Your task to perform on an android device: change text size in settings app Image 0: 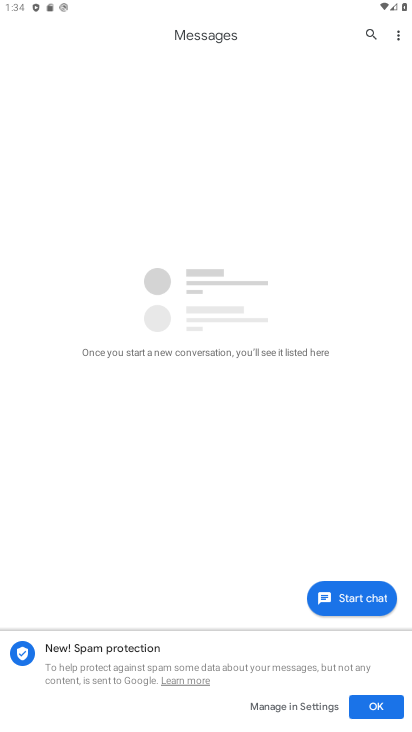
Step 0: press home button
Your task to perform on an android device: change text size in settings app Image 1: 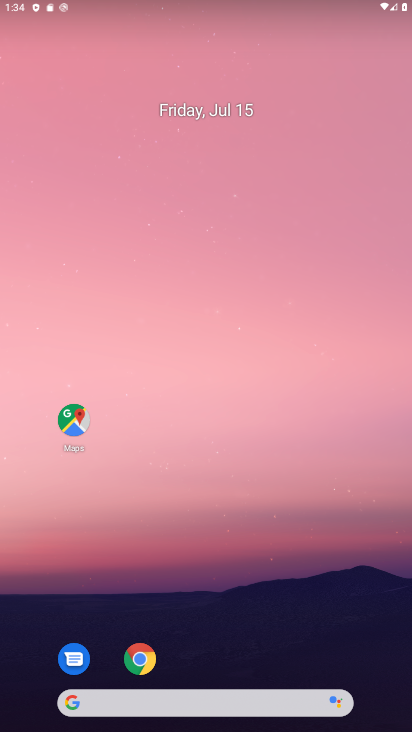
Step 1: drag from (234, 554) to (229, 161)
Your task to perform on an android device: change text size in settings app Image 2: 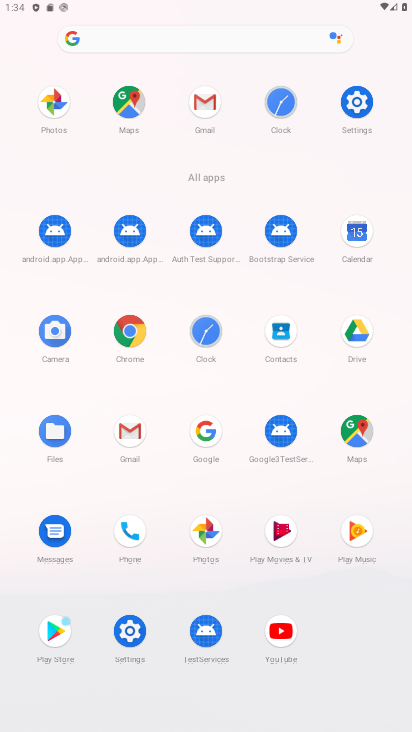
Step 2: click (354, 88)
Your task to perform on an android device: change text size in settings app Image 3: 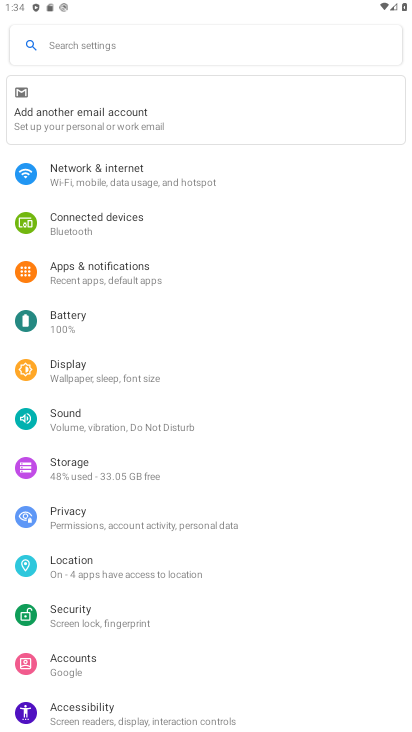
Step 3: drag from (163, 686) to (255, 249)
Your task to perform on an android device: change text size in settings app Image 4: 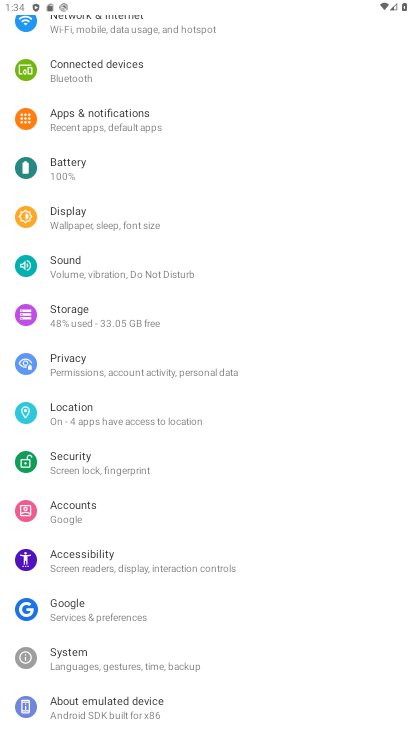
Step 4: click (104, 660)
Your task to perform on an android device: change text size in settings app Image 5: 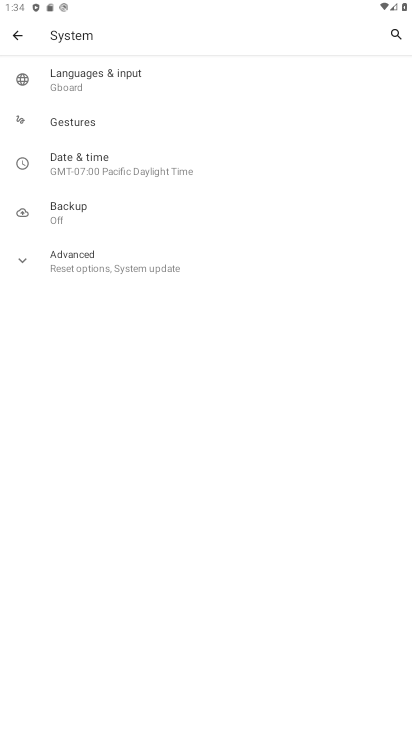
Step 5: click (11, 28)
Your task to perform on an android device: change text size in settings app Image 6: 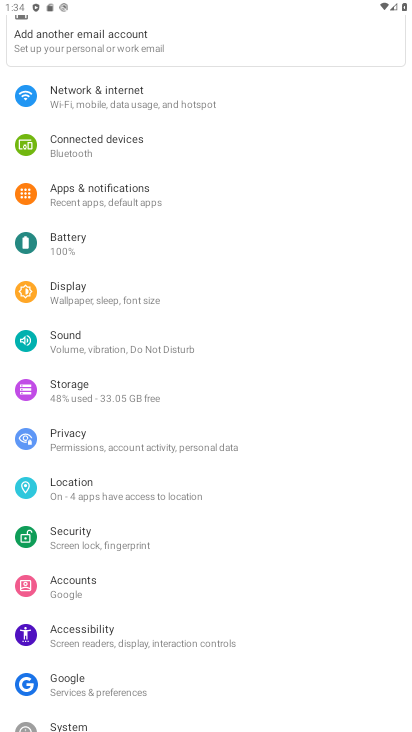
Step 6: click (103, 624)
Your task to perform on an android device: change text size in settings app Image 7: 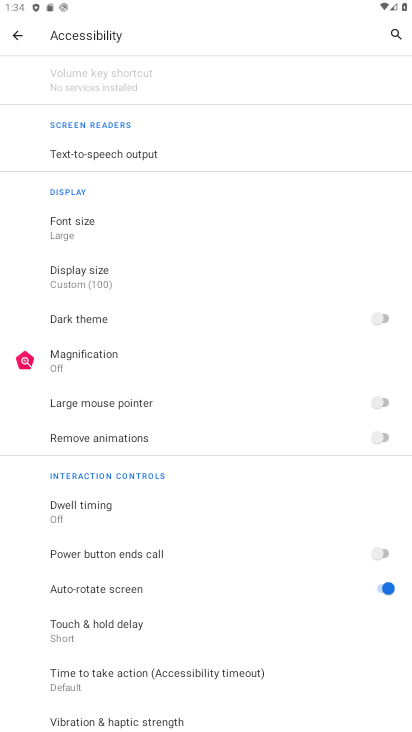
Step 7: click (97, 225)
Your task to perform on an android device: change text size in settings app Image 8: 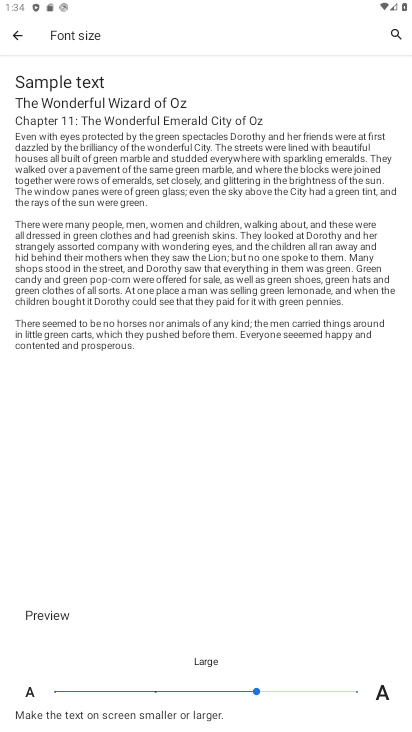
Step 8: click (324, 688)
Your task to perform on an android device: change text size in settings app Image 9: 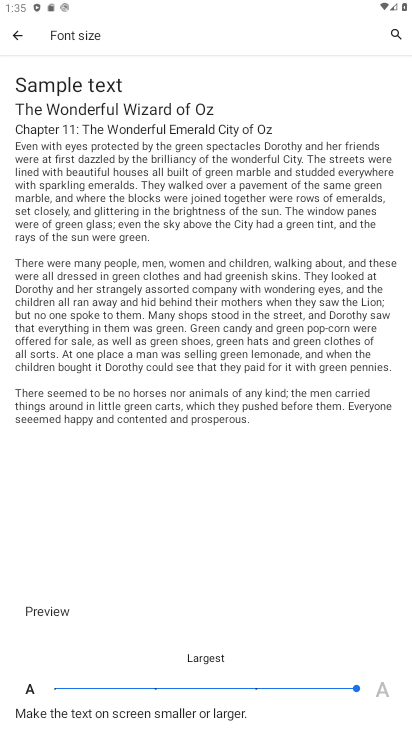
Step 9: task complete